Your task to perform on an android device: clear all cookies in the chrome app Image 0: 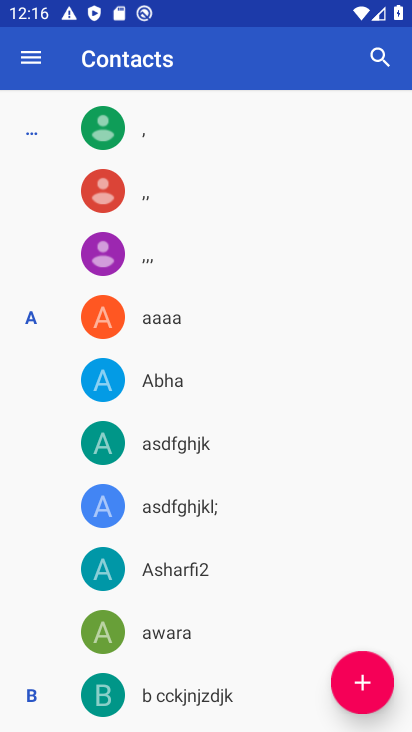
Step 0: press home button
Your task to perform on an android device: clear all cookies in the chrome app Image 1: 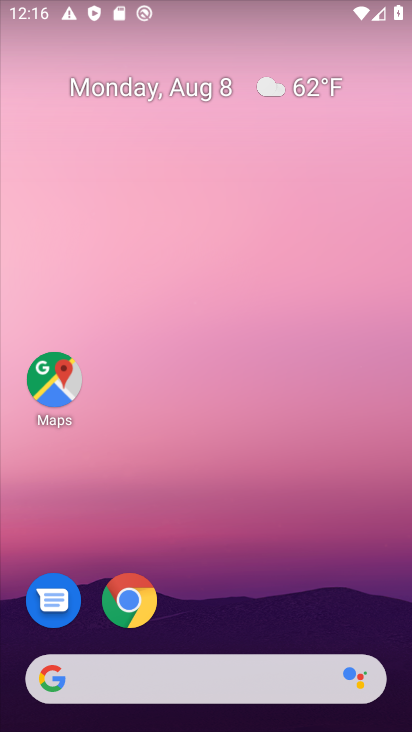
Step 1: click (145, 596)
Your task to perform on an android device: clear all cookies in the chrome app Image 2: 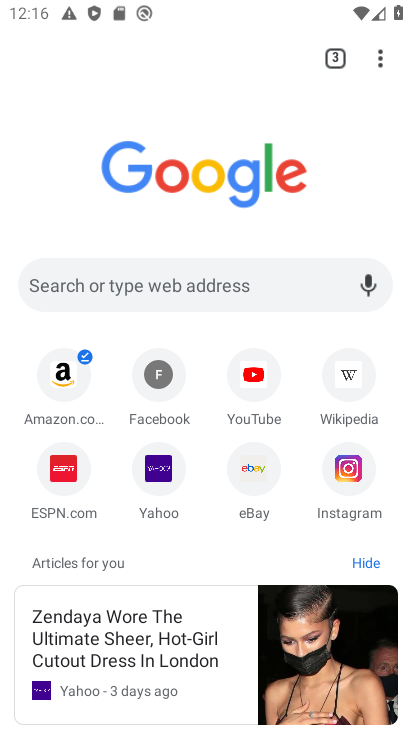
Step 2: click (383, 54)
Your task to perform on an android device: clear all cookies in the chrome app Image 3: 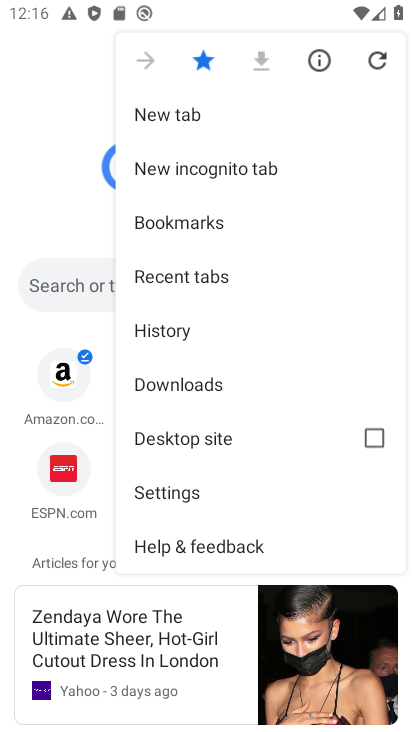
Step 3: click (196, 329)
Your task to perform on an android device: clear all cookies in the chrome app Image 4: 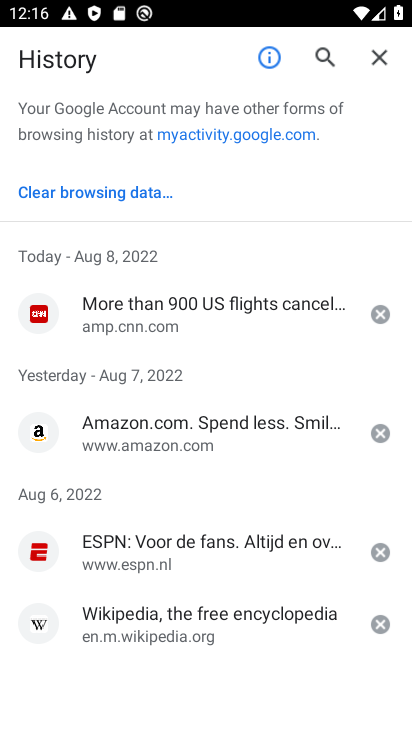
Step 4: click (115, 179)
Your task to perform on an android device: clear all cookies in the chrome app Image 5: 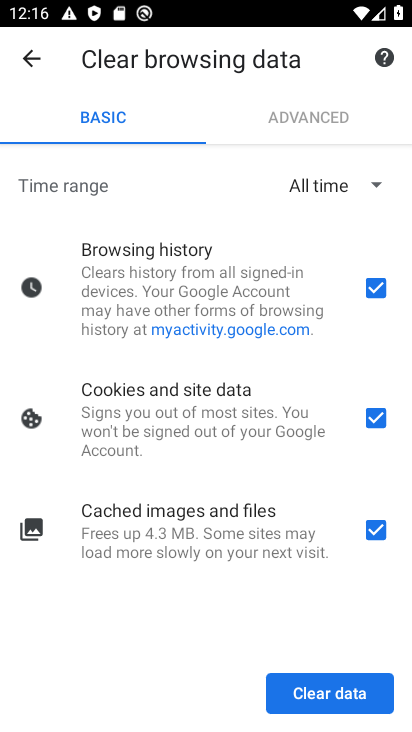
Step 5: click (342, 703)
Your task to perform on an android device: clear all cookies in the chrome app Image 6: 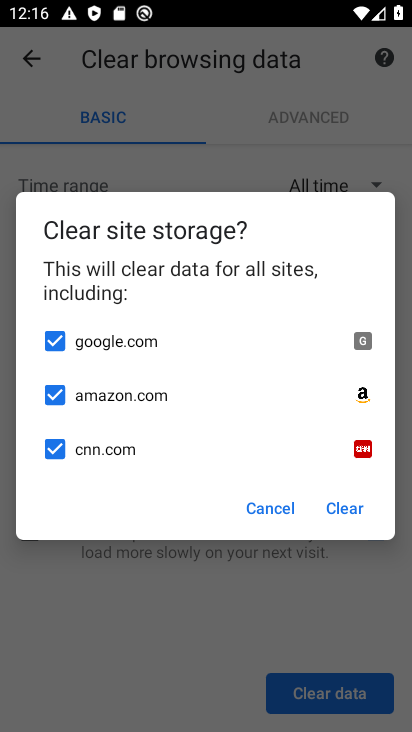
Step 6: click (344, 505)
Your task to perform on an android device: clear all cookies in the chrome app Image 7: 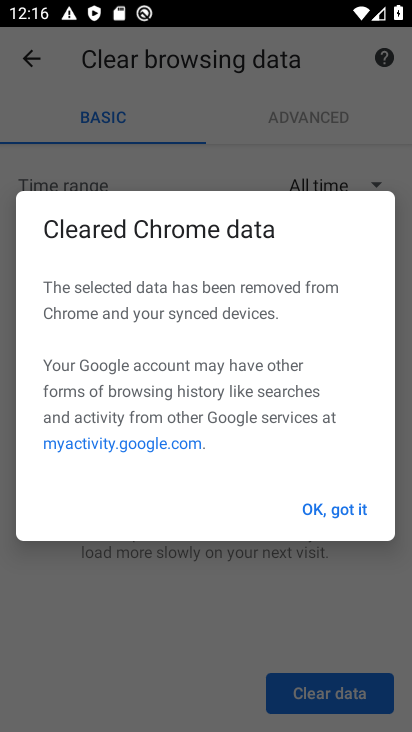
Step 7: click (334, 510)
Your task to perform on an android device: clear all cookies in the chrome app Image 8: 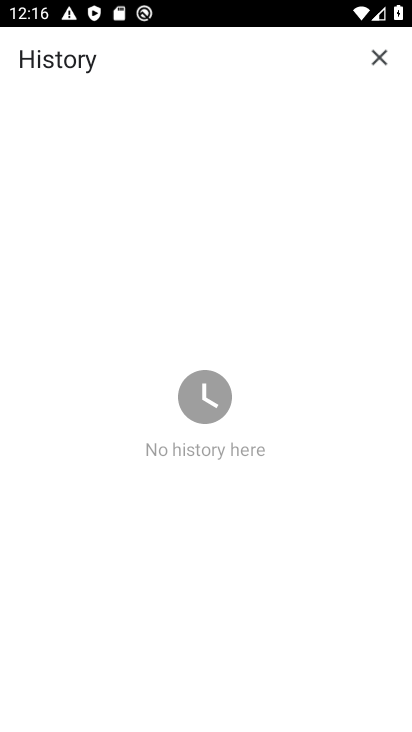
Step 8: task complete